Your task to perform on an android device: add a contact Image 0: 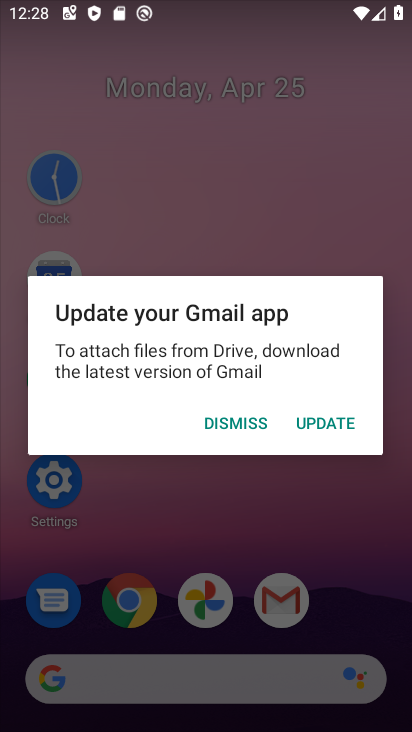
Step 0: press home button
Your task to perform on an android device: add a contact Image 1: 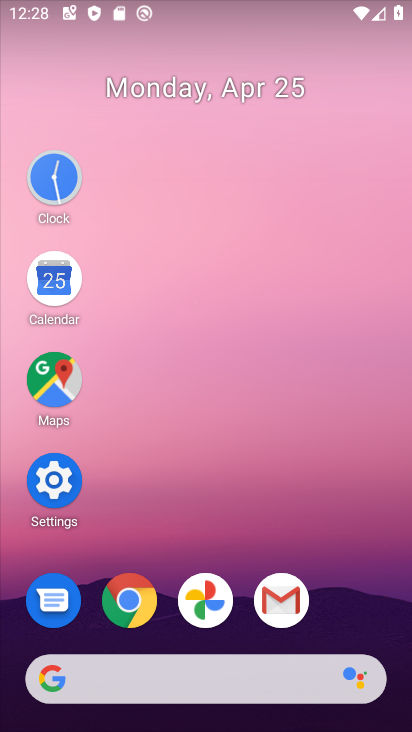
Step 1: drag from (345, 589) to (290, 216)
Your task to perform on an android device: add a contact Image 2: 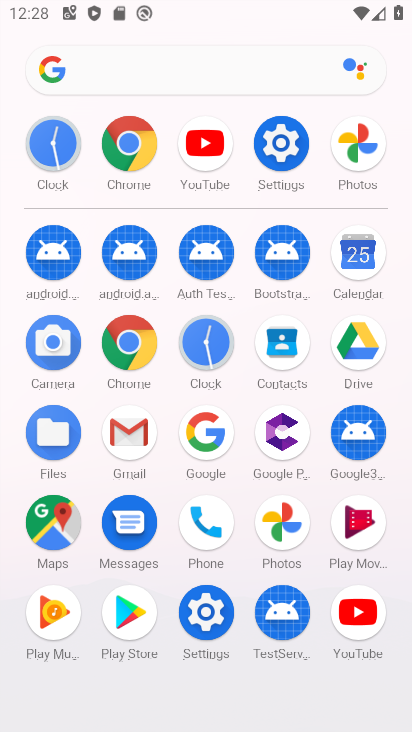
Step 2: click (275, 349)
Your task to perform on an android device: add a contact Image 3: 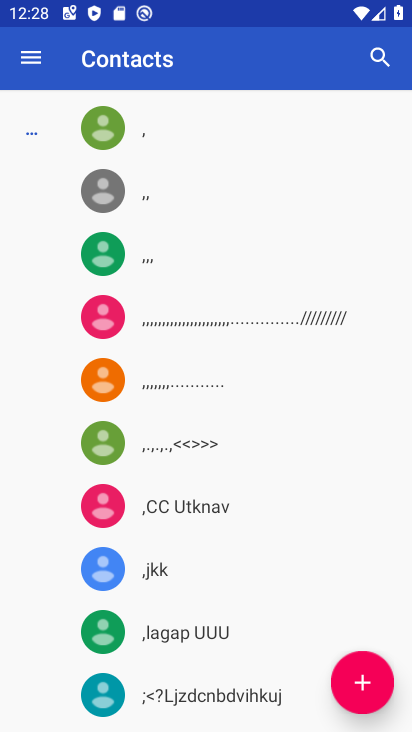
Step 3: click (364, 682)
Your task to perform on an android device: add a contact Image 4: 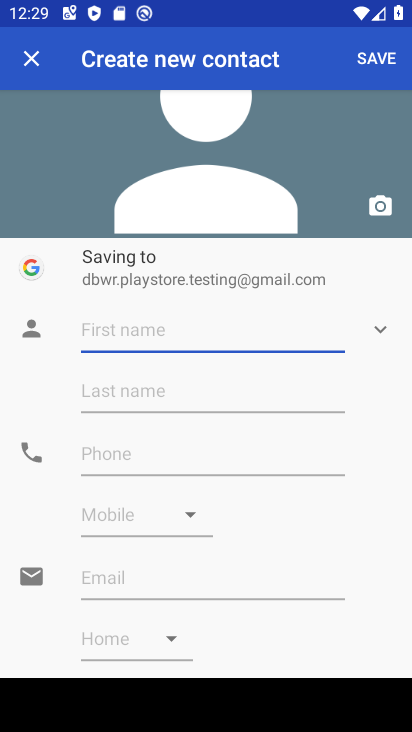
Step 4: type "fgf"
Your task to perform on an android device: add a contact Image 5: 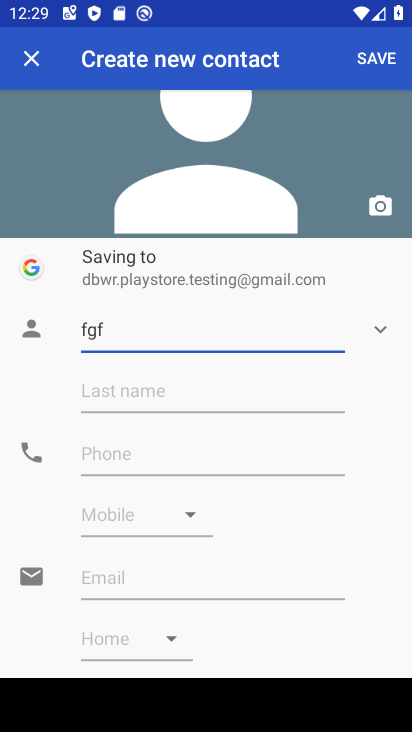
Step 5: click (192, 452)
Your task to perform on an android device: add a contact Image 6: 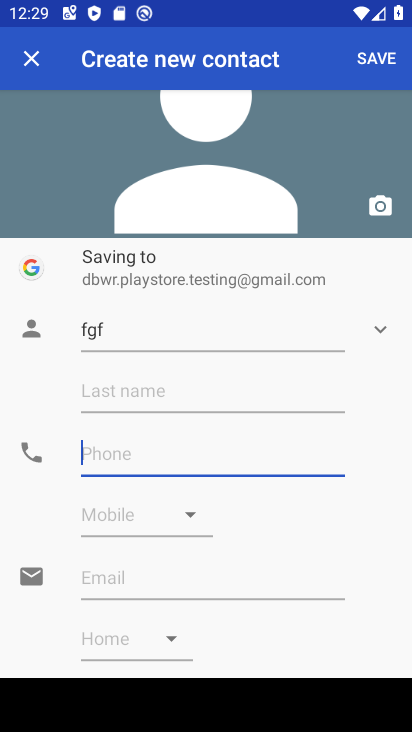
Step 6: type "342"
Your task to perform on an android device: add a contact Image 7: 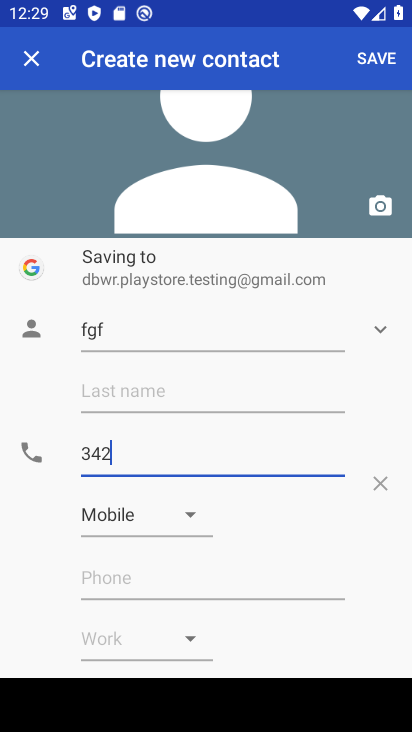
Step 7: click (376, 57)
Your task to perform on an android device: add a contact Image 8: 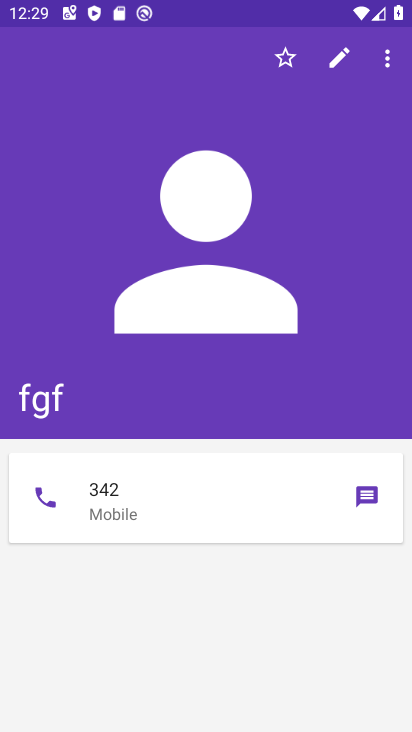
Step 8: task complete